Your task to perform on an android device: Open accessibility settings Image 0: 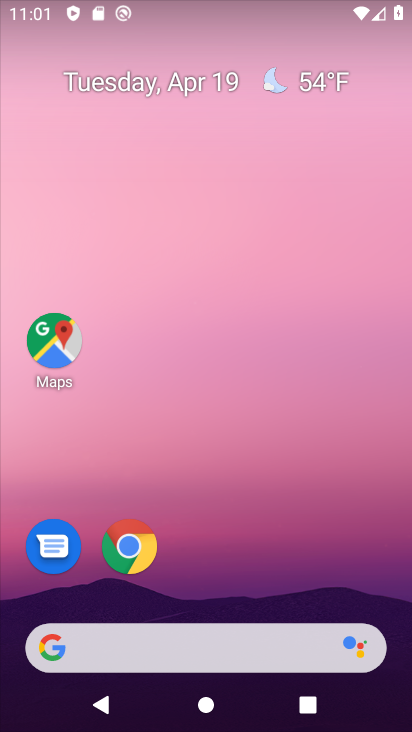
Step 0: drag from (253, 224) to (255, 1)
Your task to perform on an android device: Open accessibility settings Image 1: 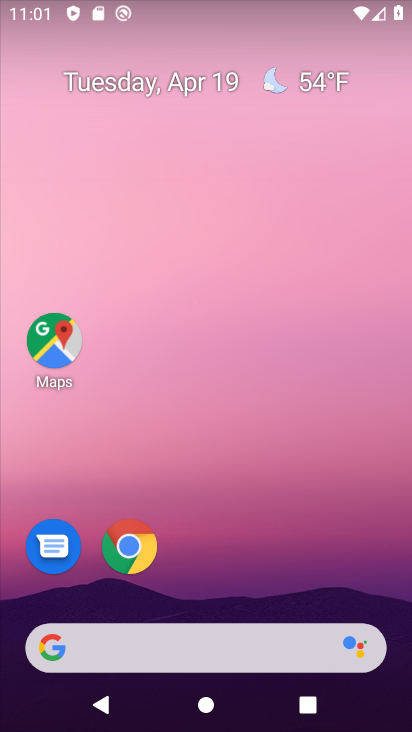
Step 1: drag from (263, 706) to (242, 12)
Your task to perform on an android device: Open accessibility settings Image 2: 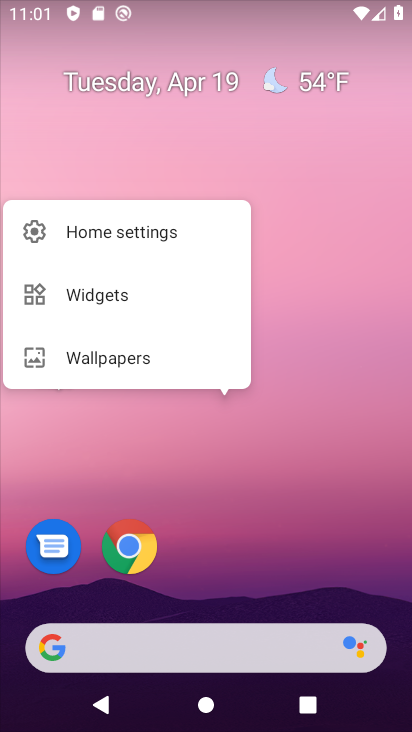
Step 2: drag from (278, 708) to (370, 19)
Your task to perform on an android device: Open accessibility settings Image 3: 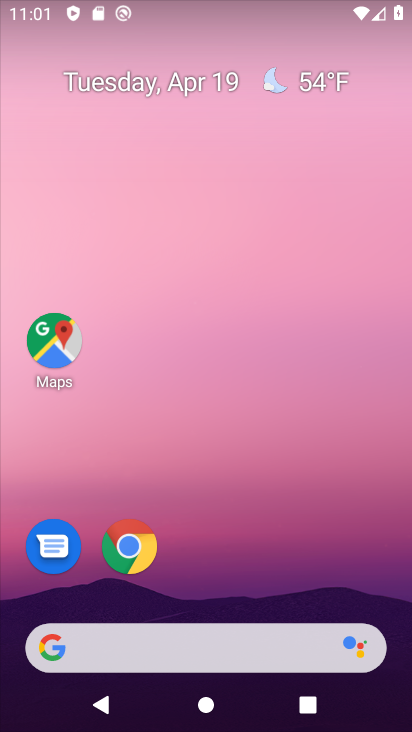
Step 3: drag from (260, 680) to (187, 0)
Your task to perform on an android device: Open accessibility settings Image 4: 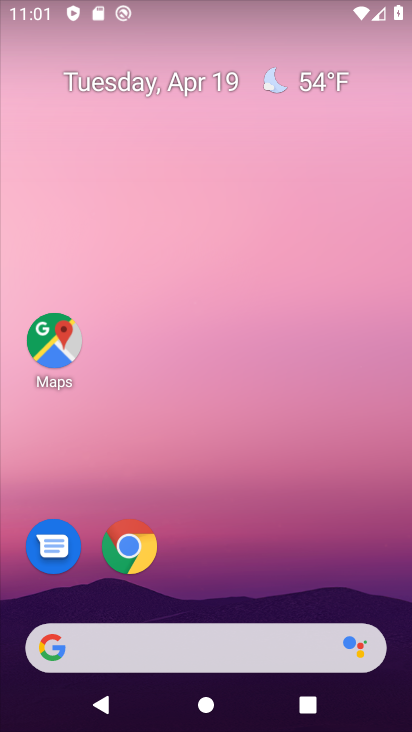
Step 4: press home button
Your task to perform on an android device: Open accessibility settings Image 5: 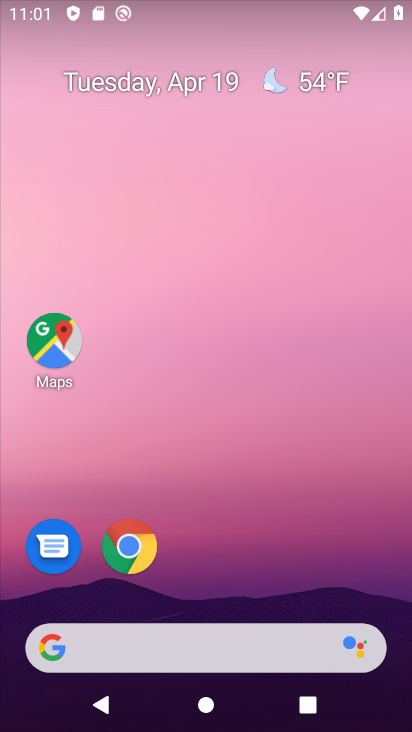
Step 5: press home button
Your task to perform on an android device: Open accessibility settings Image 6: 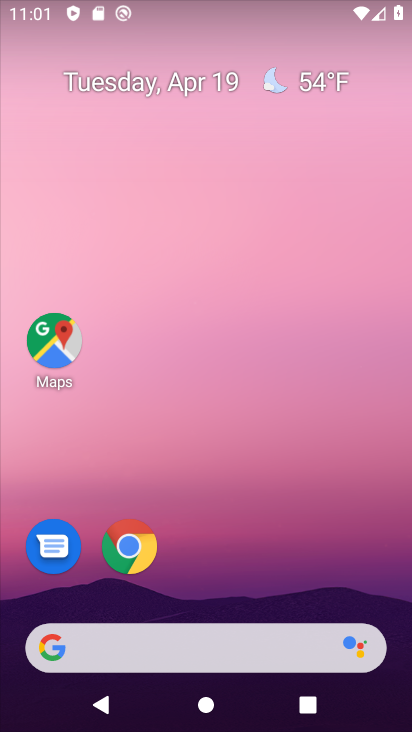
Step 6: drag from (252, 714) to (196, 0)
Your task to perform on an android device: Open accessibility settings Image 7: 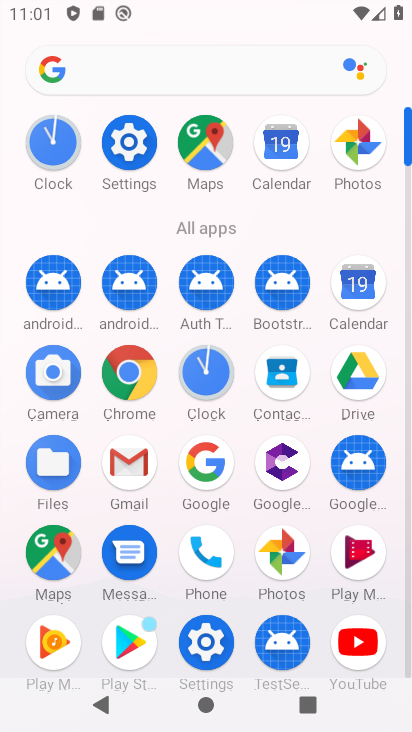
Step 7: click (113, 140)
Your task to perform on an android device: Open accessibility settings Image 8: 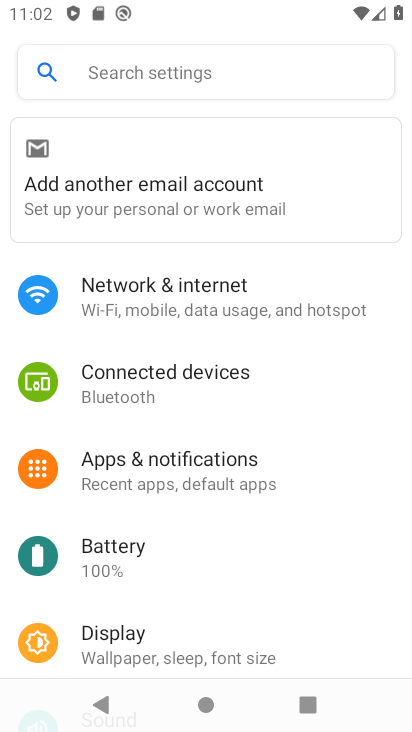
Step 8: drag from (274, 584) to (289, 24)
Your task to perform on an android device: Open accessibility settings Image 9: 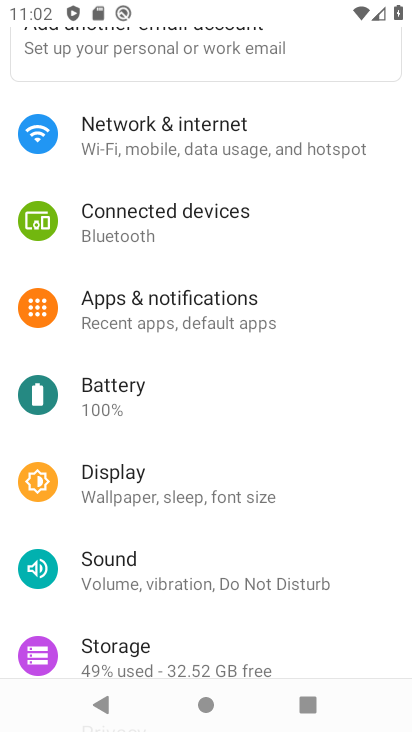
Step 9: drag from (337, 614) to (382, 6)
Your task to perform on an android device: Open accessibility settings Image 10: 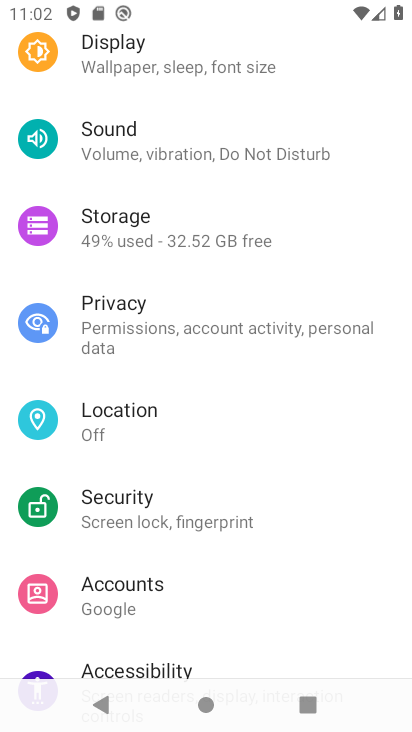
Step 10: click (219, 668)
Your task to perform on an android device: Open accessibility settings Image 11: 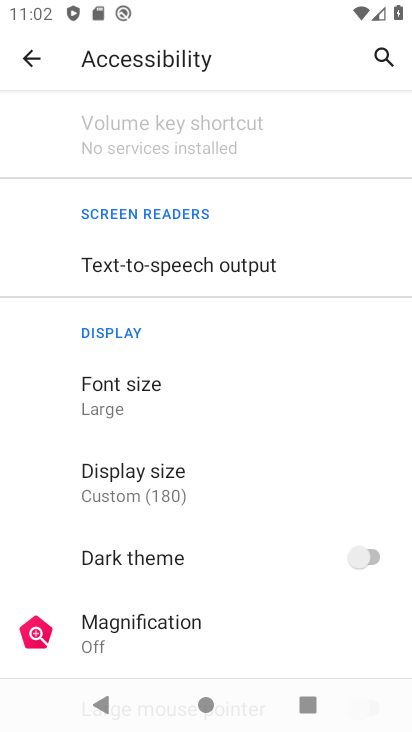
Step 11: task complete